Your task to perform on an android device: Go to Wikipedia Image 0: 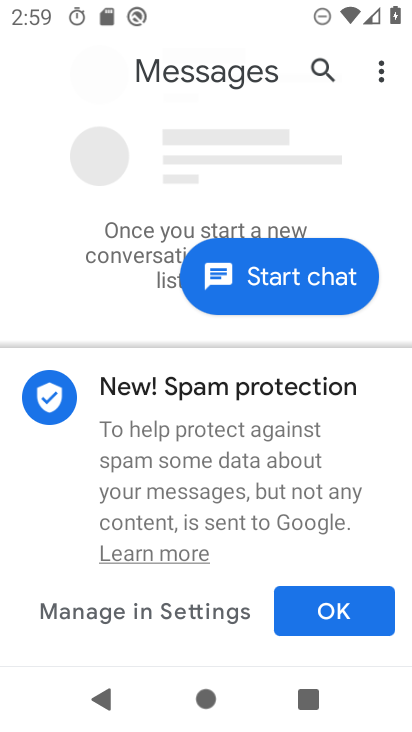
Step 0: press home button
Your task to perform on an android device: Go to Wikipedia Image 1: 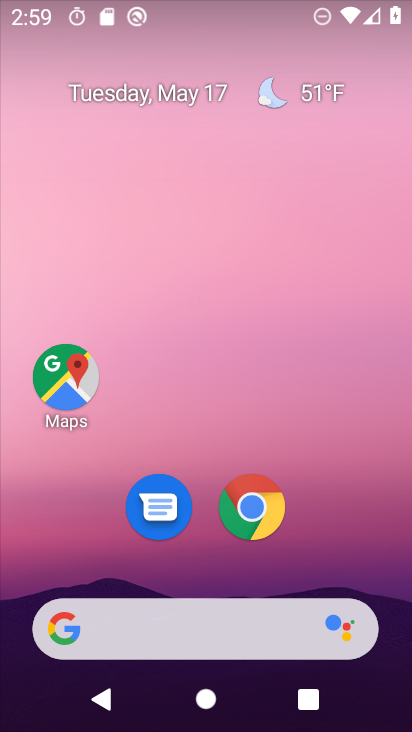
Step 1: click (249, 506)
Your task to perform on an android device: Go to Wikipedia Image 2: 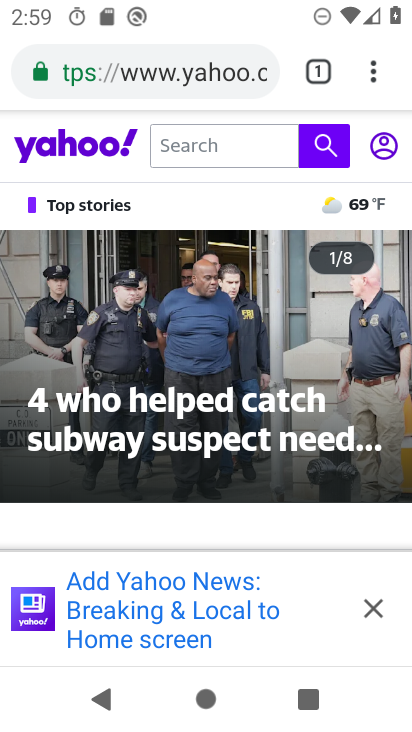
Step 2: press back button
Your task to perform on an android device: Go to Wikipedia Image 3: 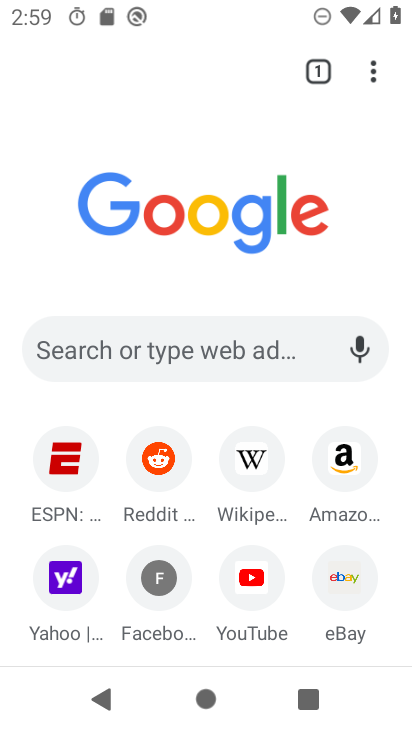
Step 3: click (258, 450)
Your task to perform on an android device: Go to Wikipedia Image 4: 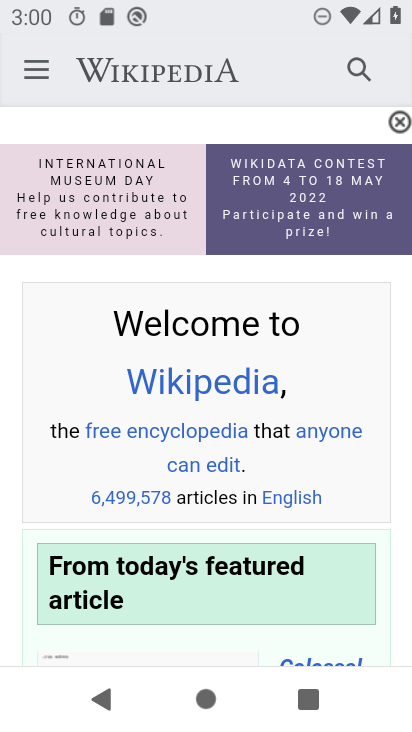
Step 4: task complete